Your task to perform on an android device: uninstall "Chime – Mobile Banking" Image 0: 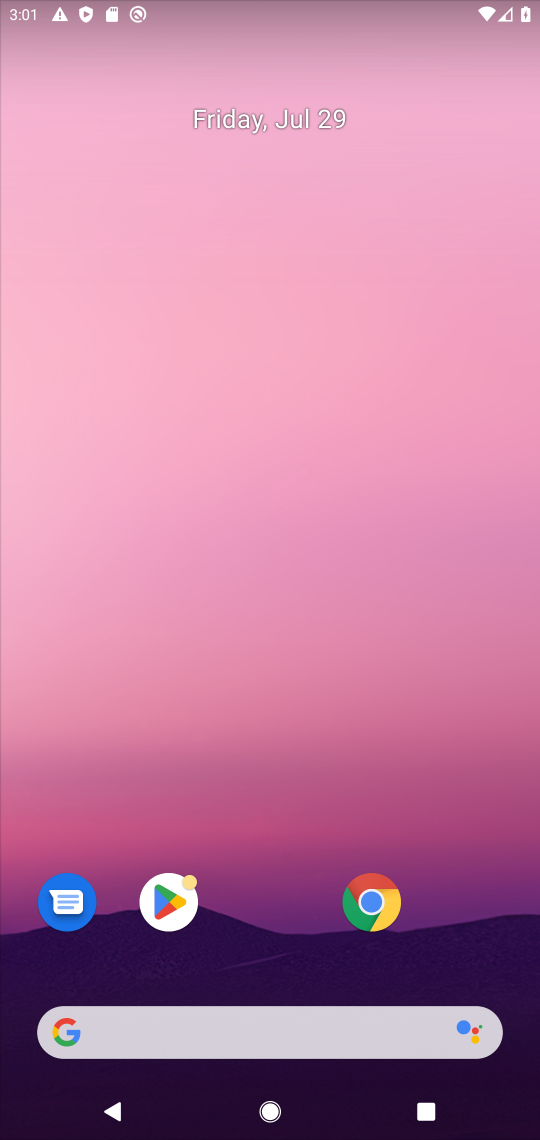
Step 0: click (299, 328)
Your task to perform on an android device: uninstall "Chime – Mobile Banking" Image 1: 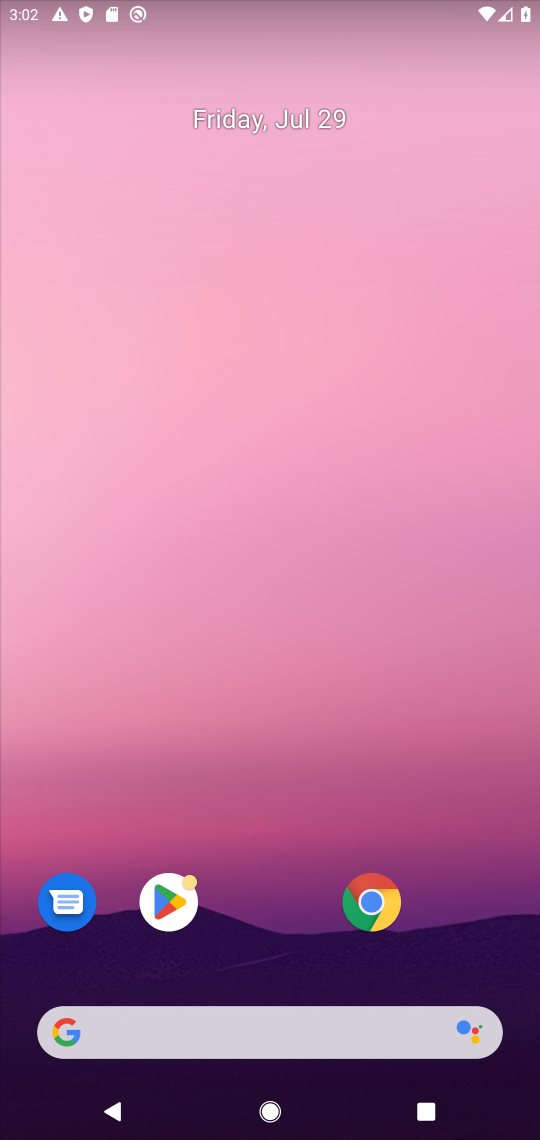
Step 1: drag from (293, 1045) to (130, 386)
Your task to perform on an android device: uninstall "Chime – Mobile Banking" Image 2: 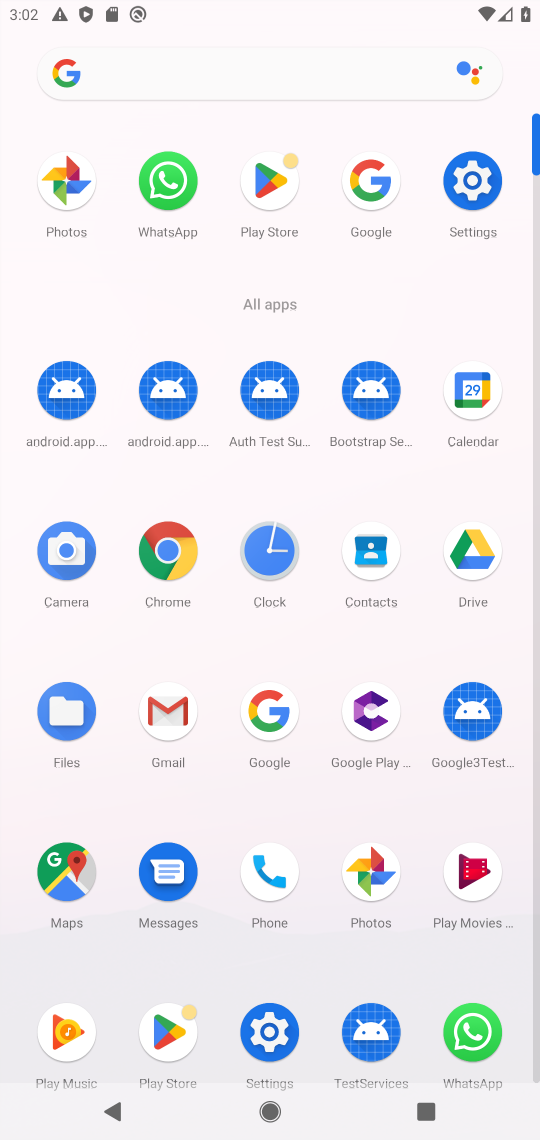
Step 2: click (255, 183)
Your task to perform on an android device: uninstall "Chime – Mobile Banking" Image 3: 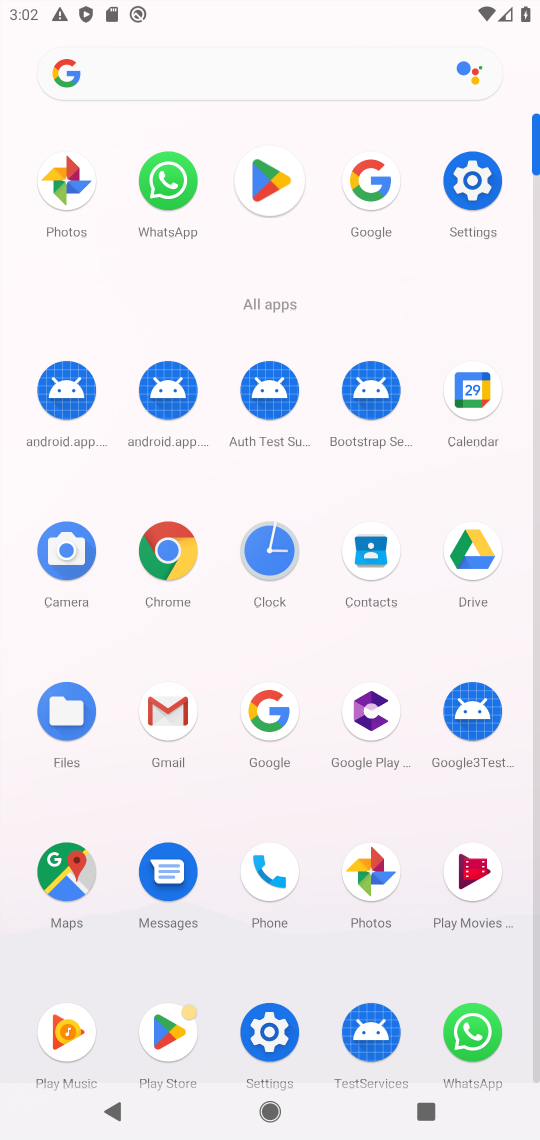
Step 3: click (252, 179)
Your task to perform on an android device: uninstall "Chime – Mobile Banking" Image 4: 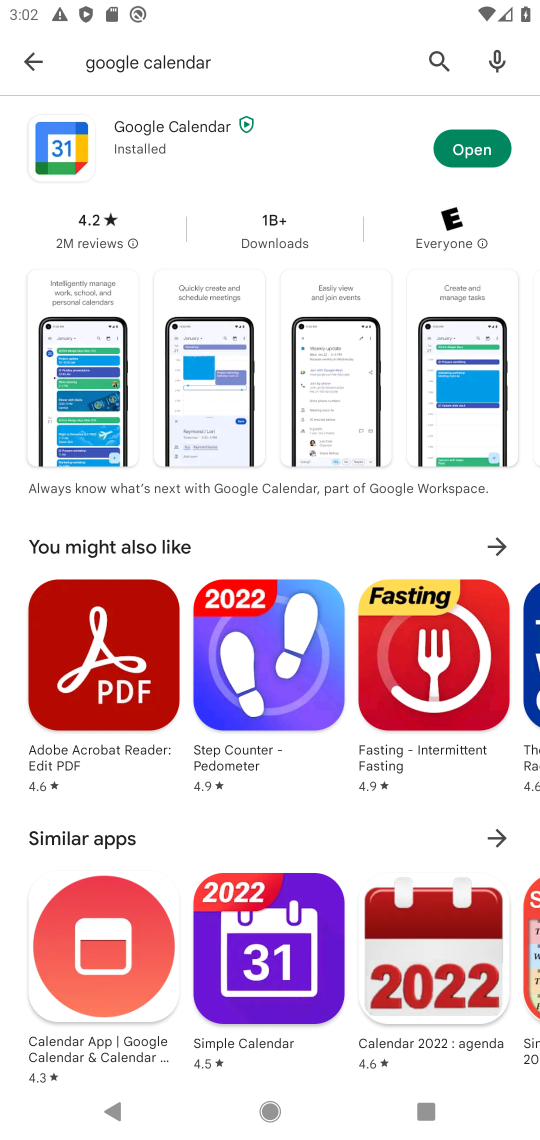
Step 4: click (39, 70)
Your task to perform on an android device: uninstall "Chime – Mobile Banking" Image 5: 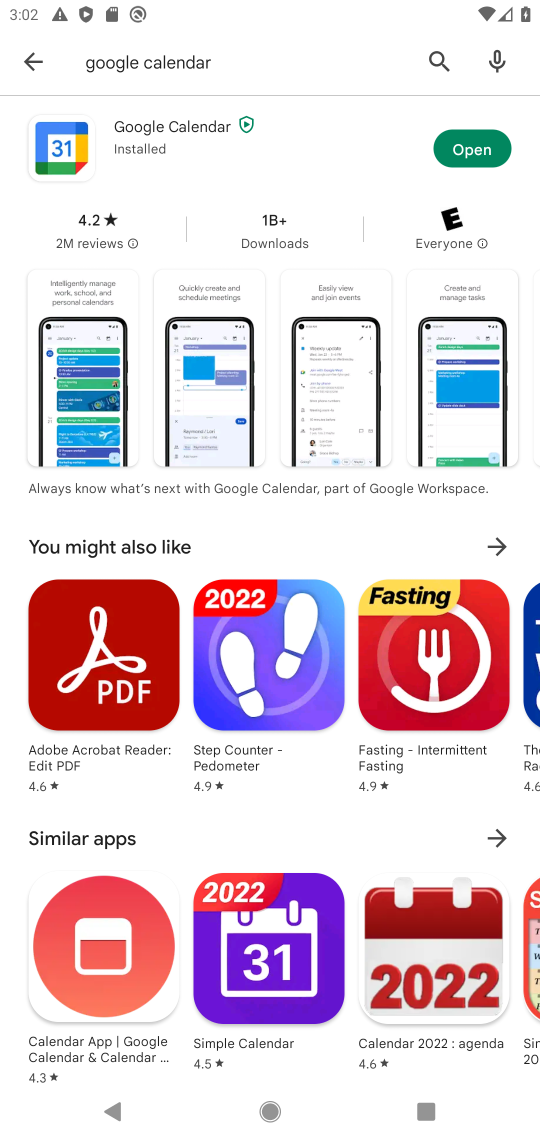
Step 5: click (32, 51)
Your task to perform on an android device: uninstall "Chime – Mobile Banking" Image 6: 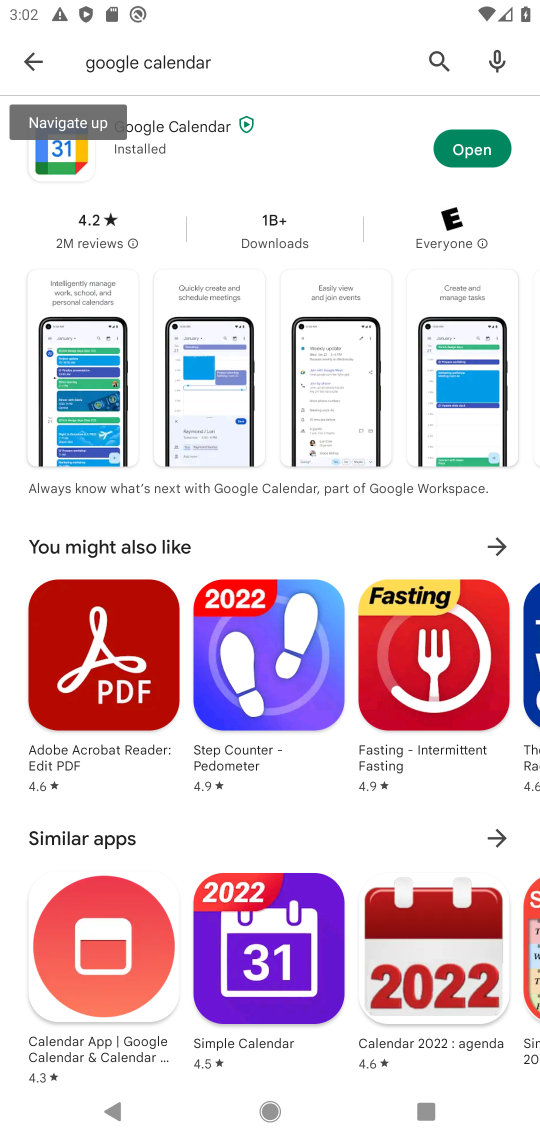
Step 6: click (33, 57)
Your task to perform on an android device: uninstall "Chime – Mobile Banking" Image 7: 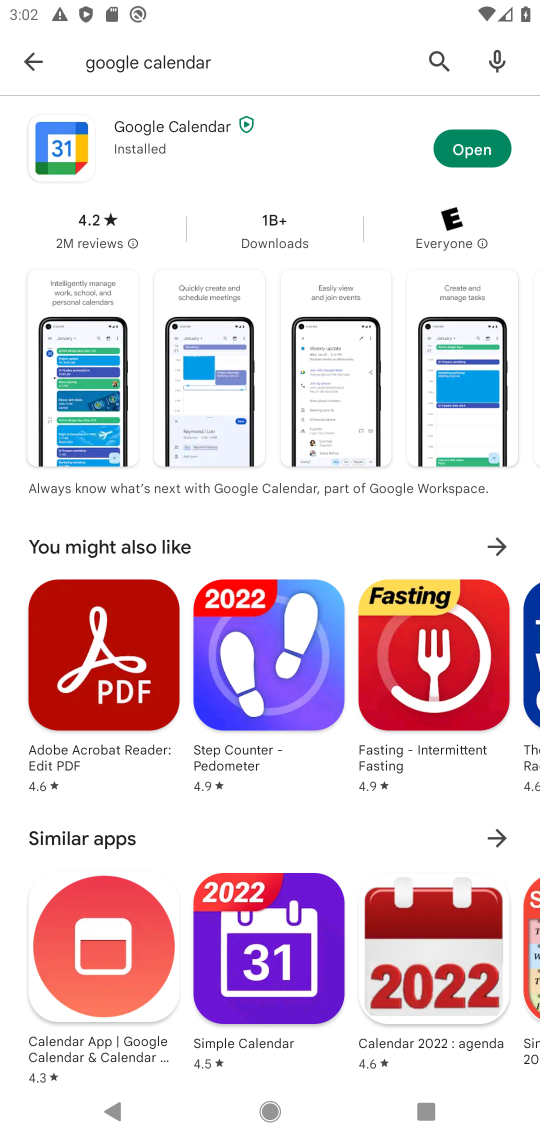
Step 7: click (33, 57)
Your task to perform on an android device: uninstall "Chime – Mobile Banking" Image 8: 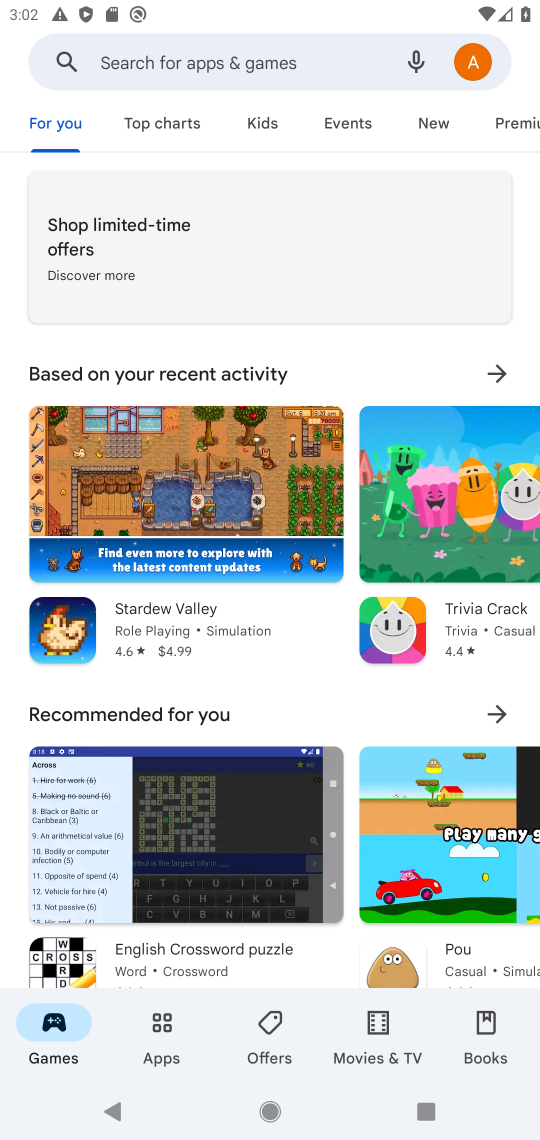
Step 8: click (37, 60)
Your task to perform on an android device: uninstall "Chime – Mobile Banking" Image 9: 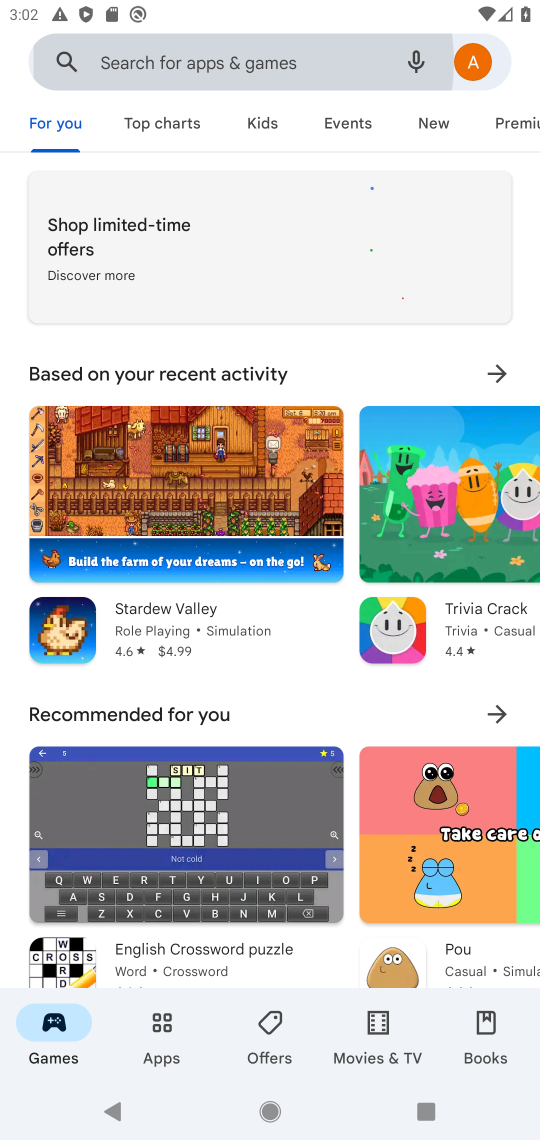
Step 9: click (114, 69)
Your task to perform on an android device: uninstall "Chime – Mobile Banking" Image 10: 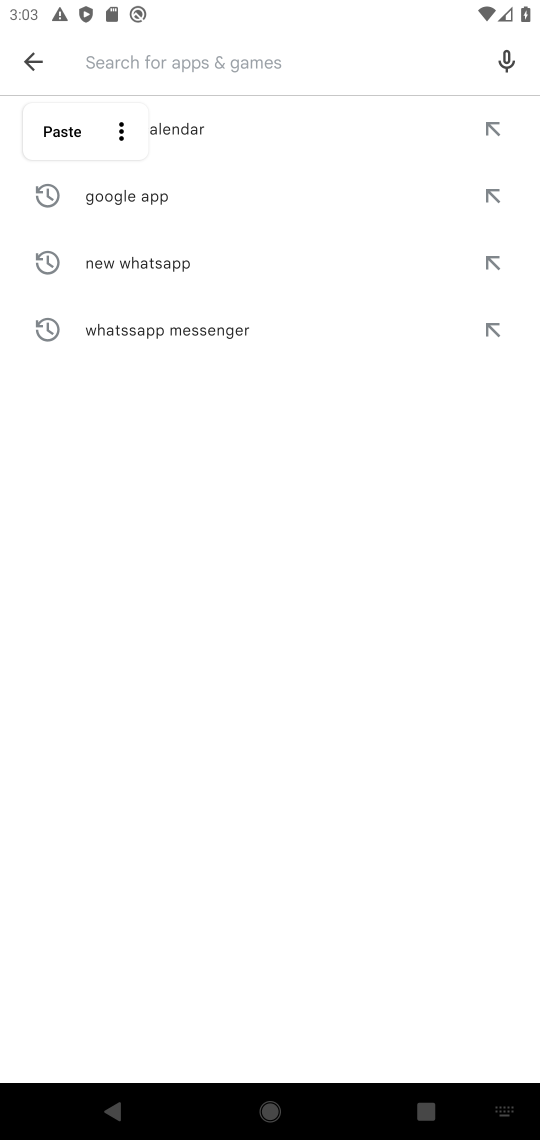
Step 10: type "Chime - Mobile Banking"
Your task to perform on an android device: uninstall "Chime – Mobile Banking" Image 11: 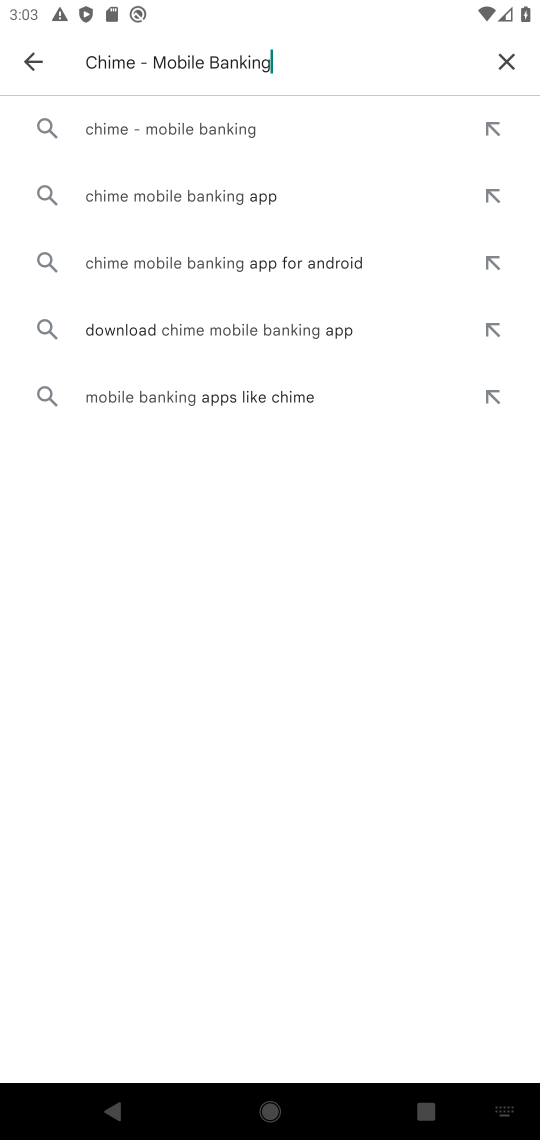
Step 11: click (189, 116)
Your task to perform on an android device: uninstall "Chime – Mobile Banking" Image 12: 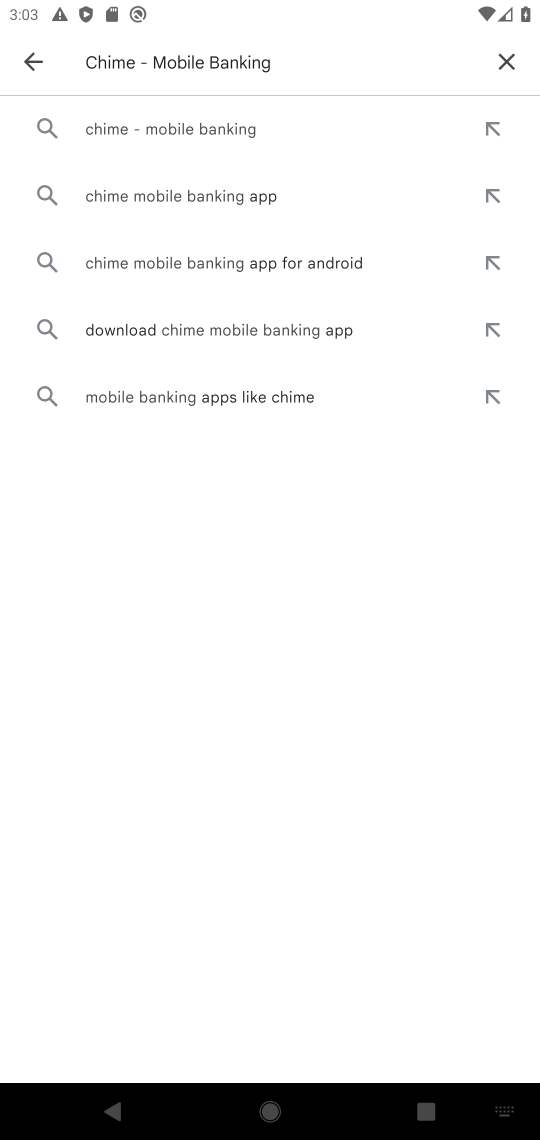
Step 12: click (190, 116)
Your task to perform on an android device: uninstall "Chime – Mobile Banking" Image 13: 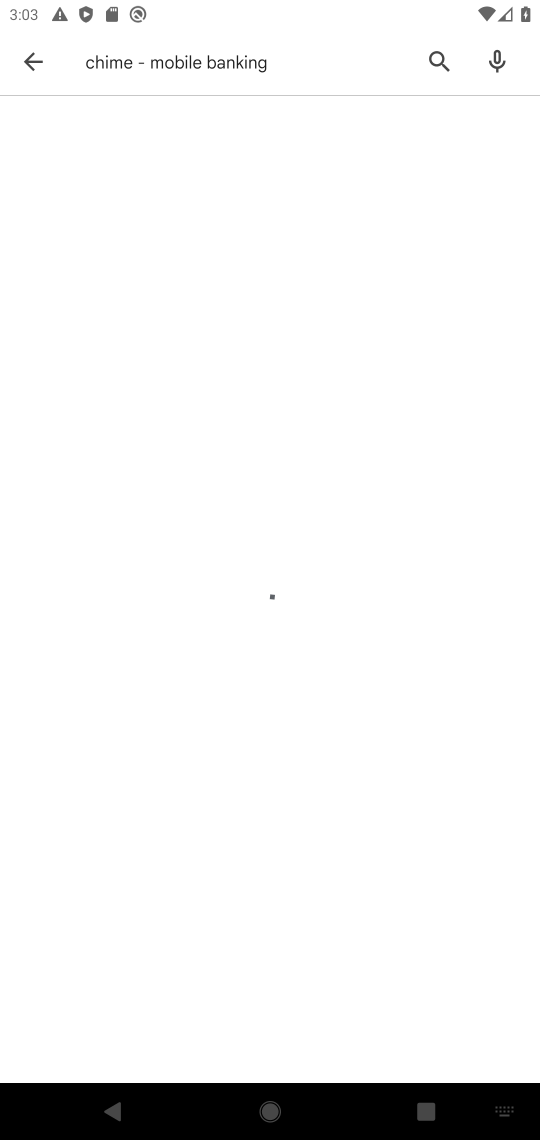
Step 13: click (199, 123)
Your task to perform on an android device: uninstall "Chime – Mobile Banking" Image 14: 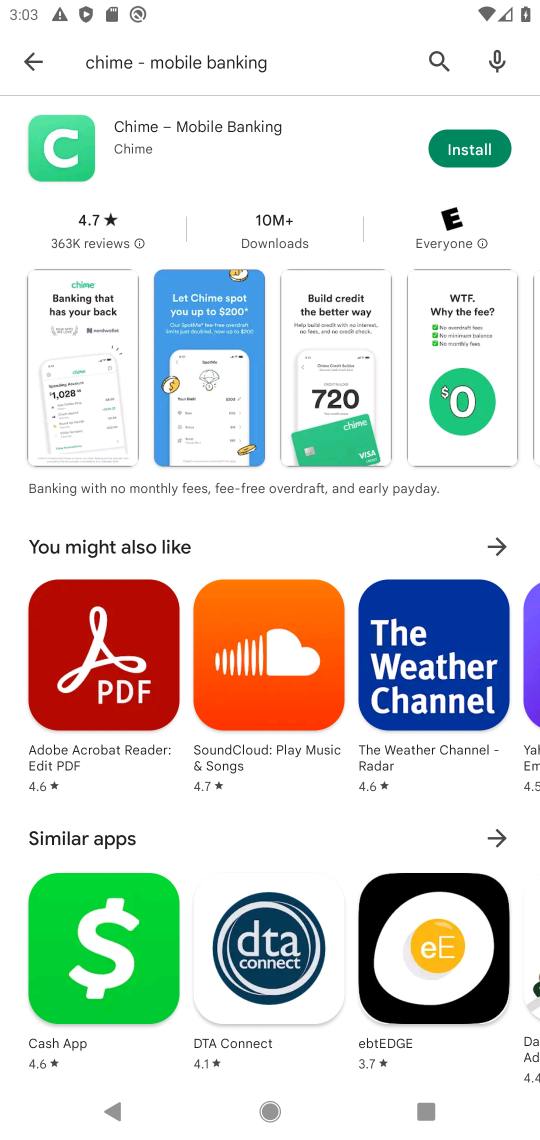
Step 14: click (486, 143)
Your task to perform on an android device: uninstall "Chime – Mobile Banking" Image 15: 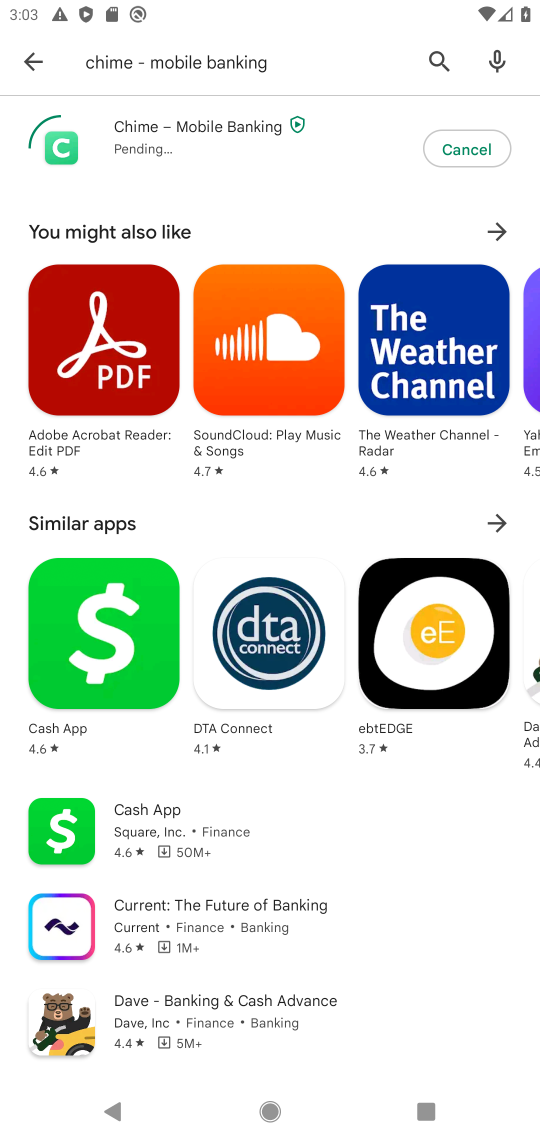
Step 15: click (458, 155)
Your task to perform on an android device: uninstall "Chime – Mobile Banking" Image 16: 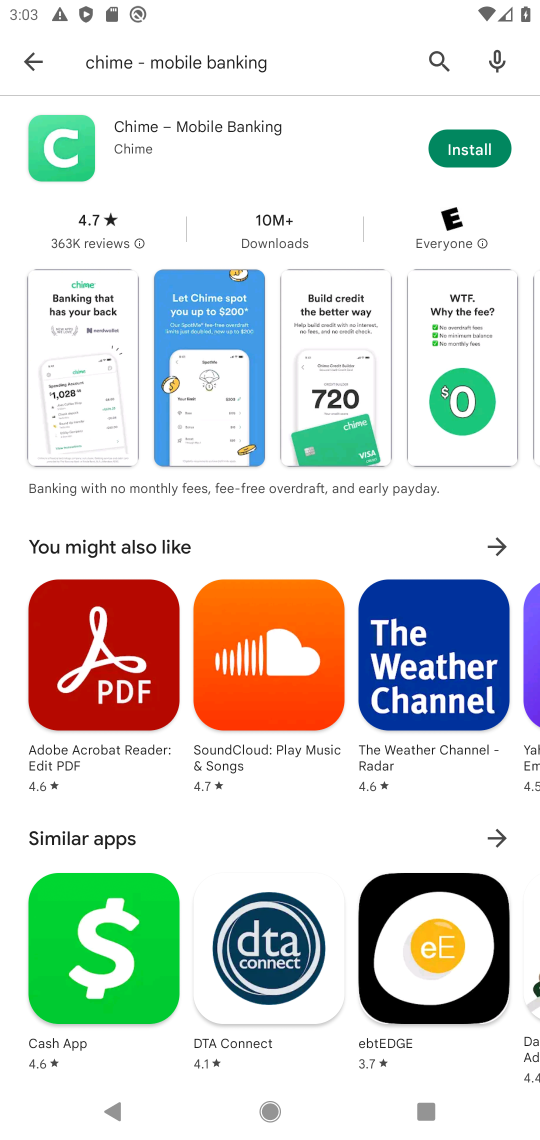
Step 16: task complete